Your task to perform on an android device: Go to calendar. Show me events next week Image 0: 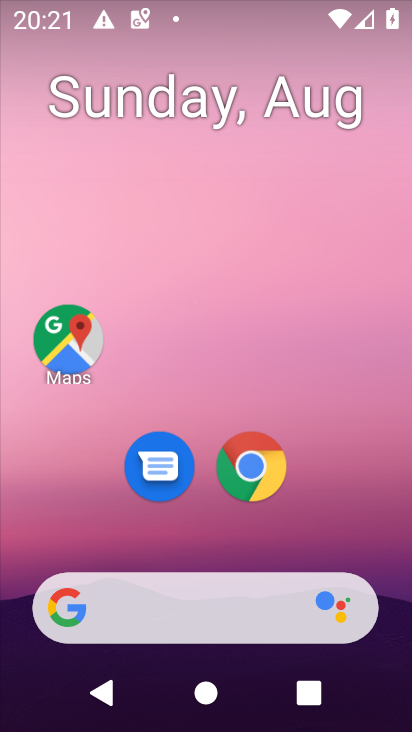
Step 0: drag from (307, 565) to (252, 135)
Your task to perform on an android device: Go to calendar. Show me events next week Image 1: 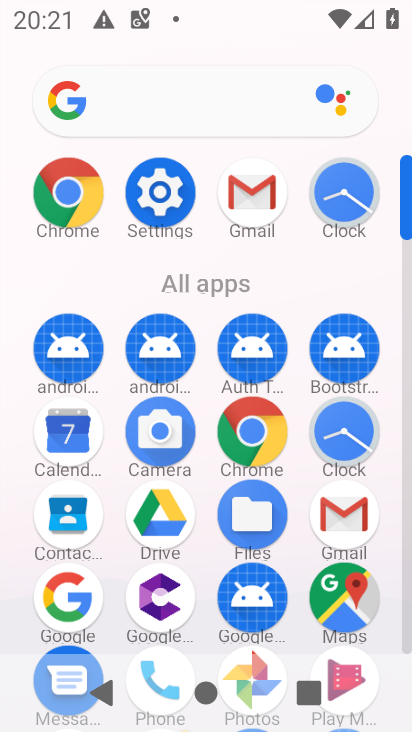
Step 1: click (81, 424)
Your task to perform on an android device: Go to calendar. Show me events next week Image 2: 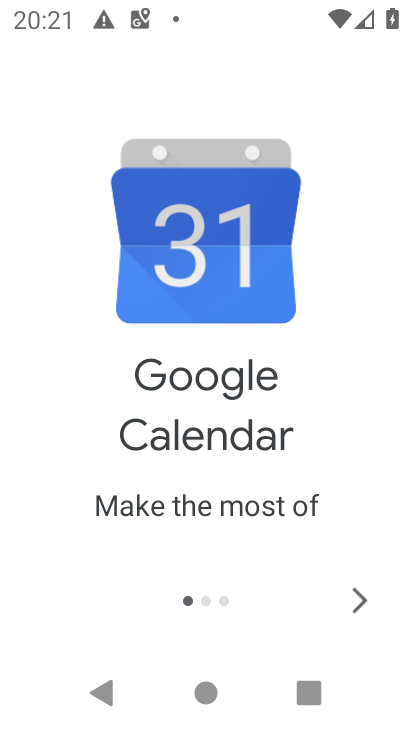
Step 2: click (351, 596)
Your task to perform on an android device: Go to calendar. Show me events next week Image 3: 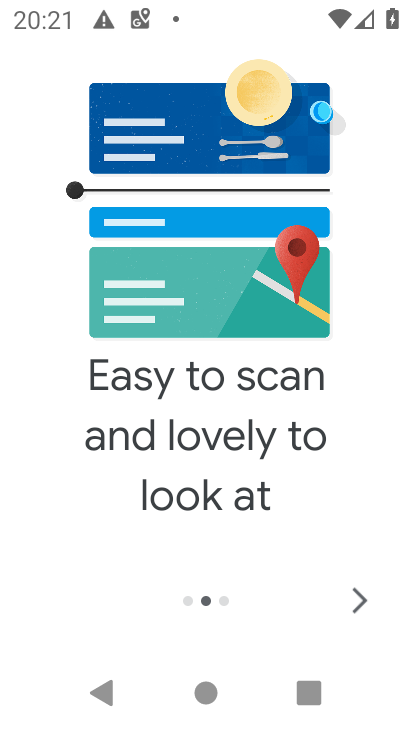
Step 3: click (351, 596)
Your task to perform on an android device: Go to calendar. Show me events next week Image 4: 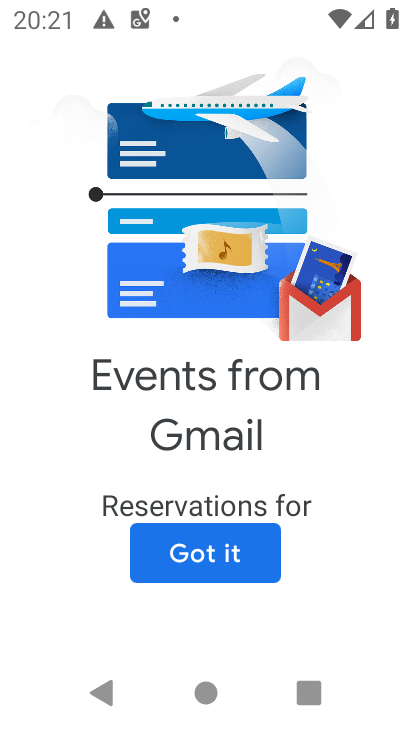
Step 4: click (200, 558)
Your task to perform on an android device: Go to calendar. Show me events next week Image 5: 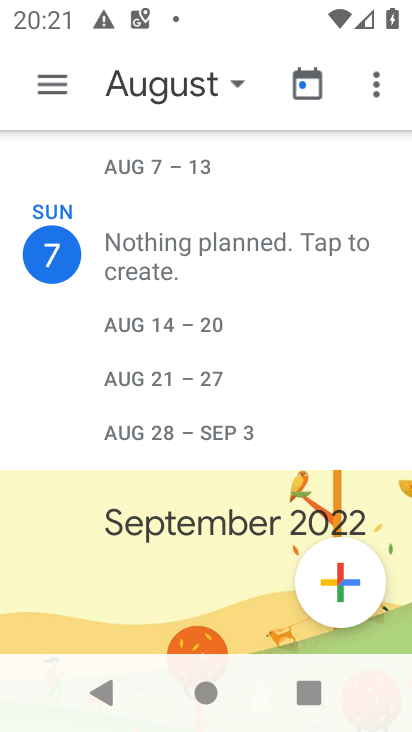
Step 5: click (43, 69)
Your task to perform on an android device: Go to calendar. Show me events next week Image 6: 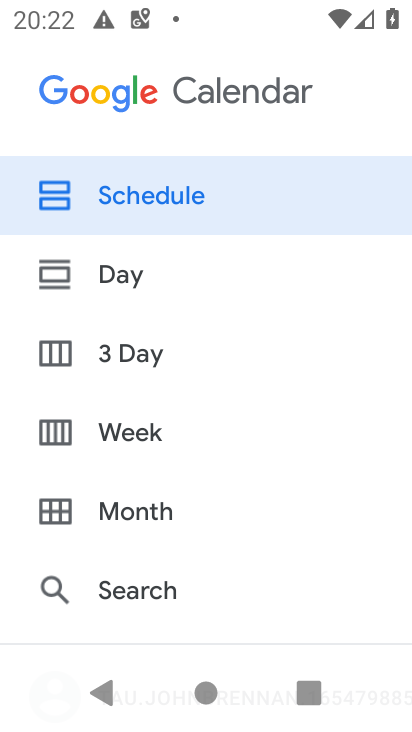
Step 6: click (232, 422)
Your task to perform on an android device: Go to calendar. Show me events next week Image 7: 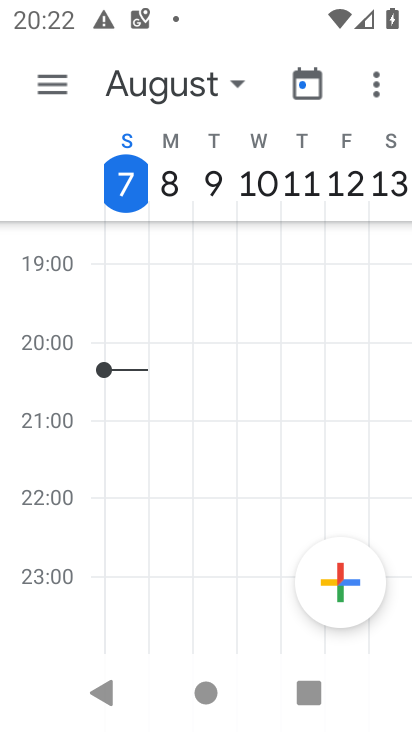
Step 7: click (195, 86)
Your task to perform on an android device: Go to calendar. Show me events next week Image 8: 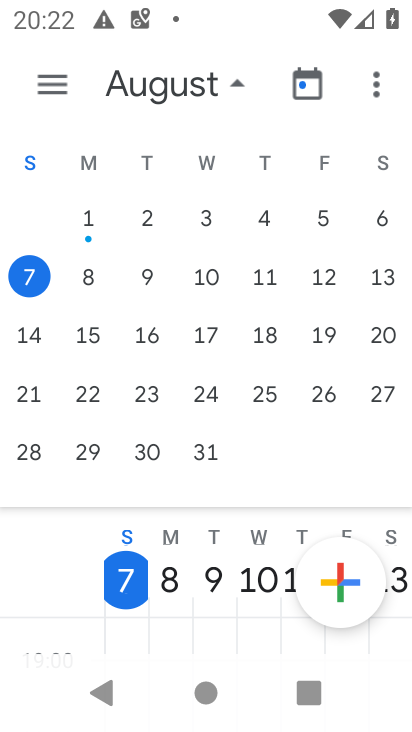
Step 8: click (140, 339)
Your task to perform on an android device: Go to calendar. Show me events next week Image 9: 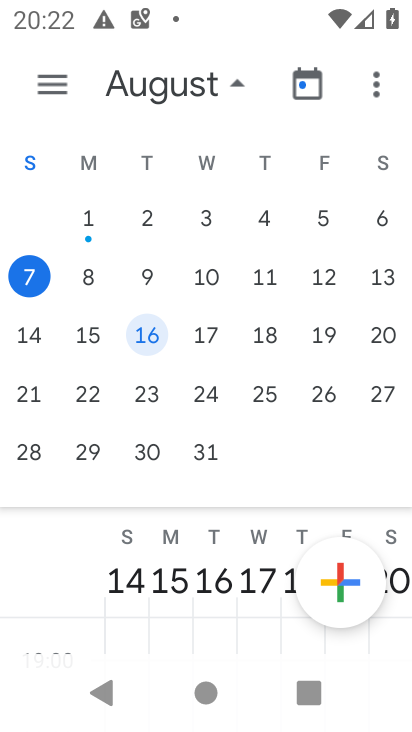
Step 9: task complete